Your task to perform on an android device: turn smart compose on in the gmail app Image 0: 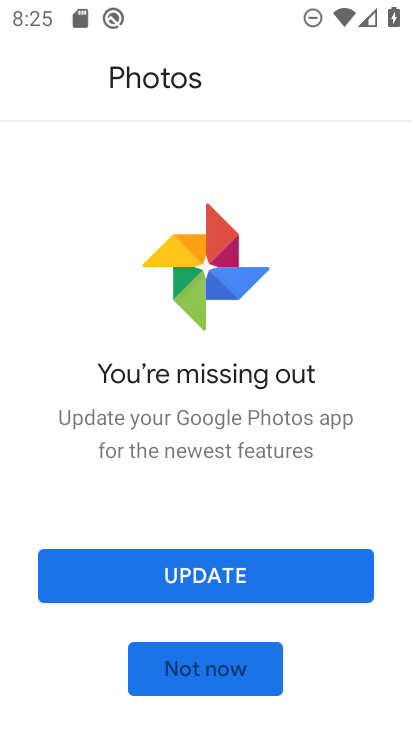
Step 0: press home button
Your task to perform on an android device: turn smart compose on in the gmail app Image 1: 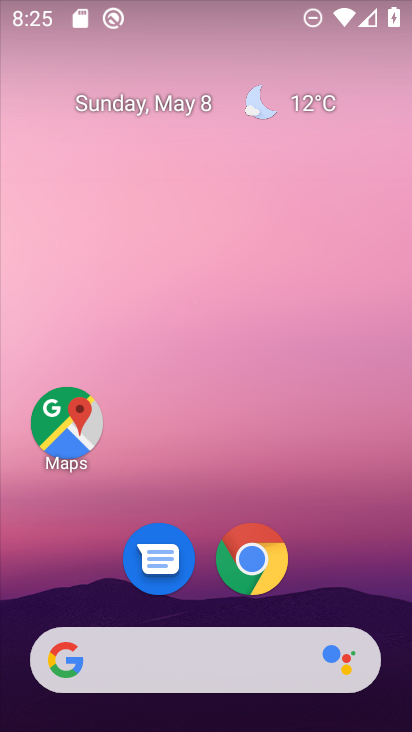
Step 1: drag from (372, 613) to (325, 7)
Your task to perform on an android device: turn smart compose on in the gmail app Image 2: 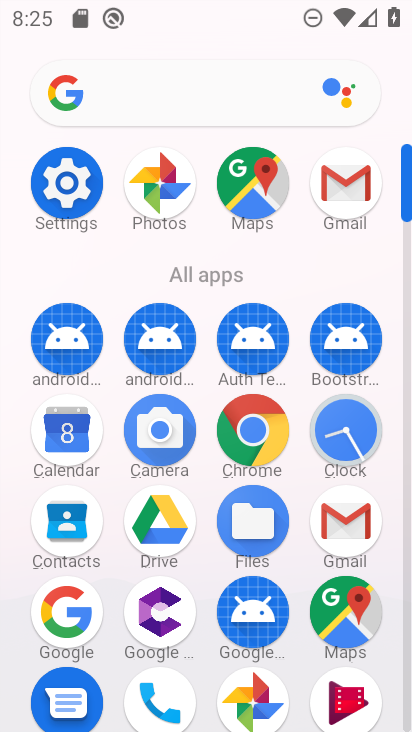
Step 2: click (350, 192)
Your task to perform on an android device: turn smart compose on in the gmail app Image 3: 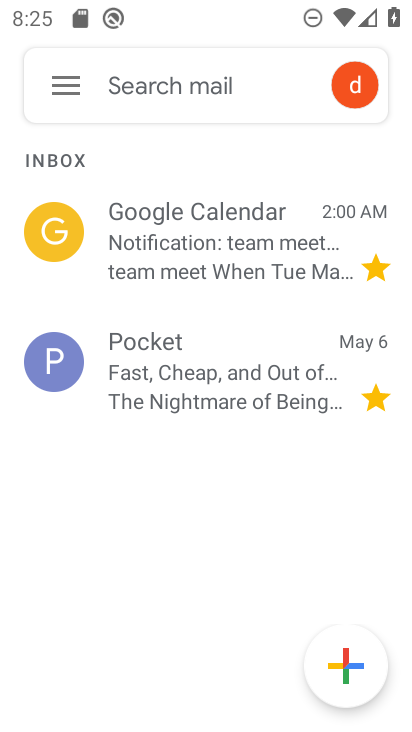
Step 3: click (73, 83)
Your task to perform on an android device: turn smart compose on in the gmail app Image 4: 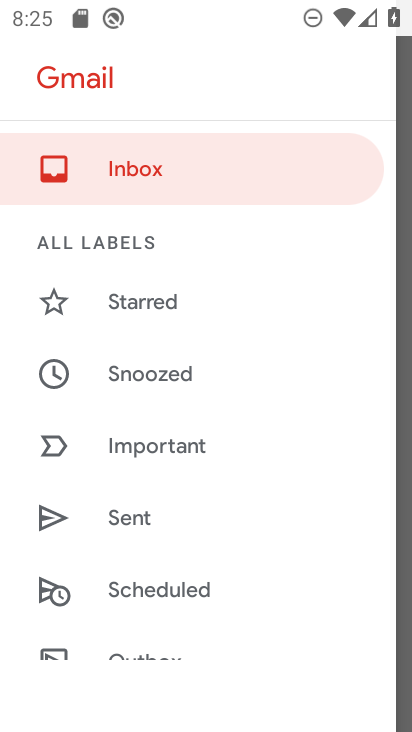
Step 4: drag from (188, 558) to (218, 34)
Your task to perform on an android device: turn smart compose on in the gmail app Image 5: 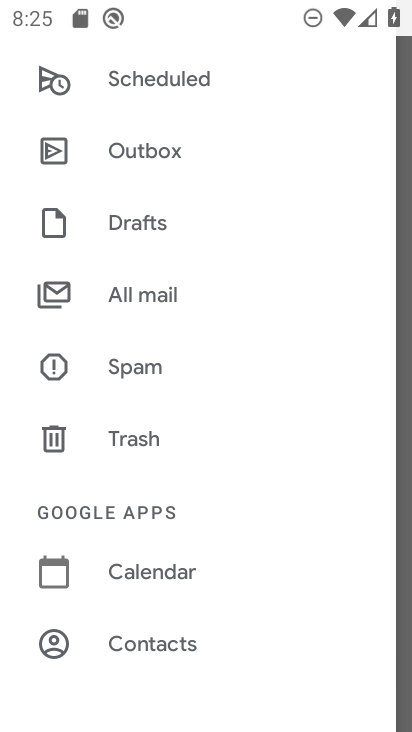
Step 5: drag from (177, 607) to (232, 48)
Your task to perform on an android device: turn smart compose on in the gmail app Image 6: 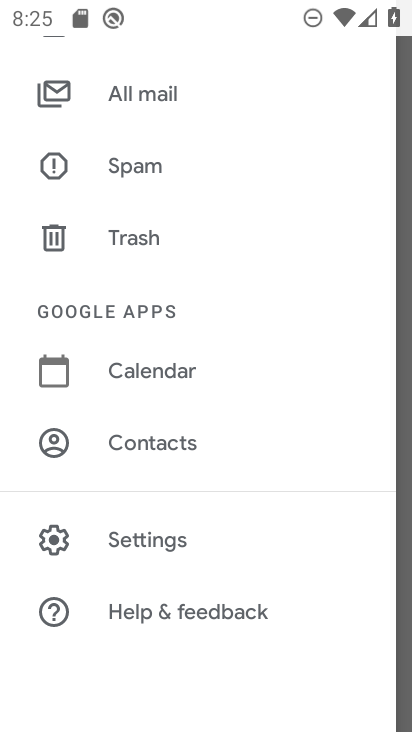
Step 6: click (161, 546)
Your task to perform on an android device: turn smart compose on in the gmail app Image 7: 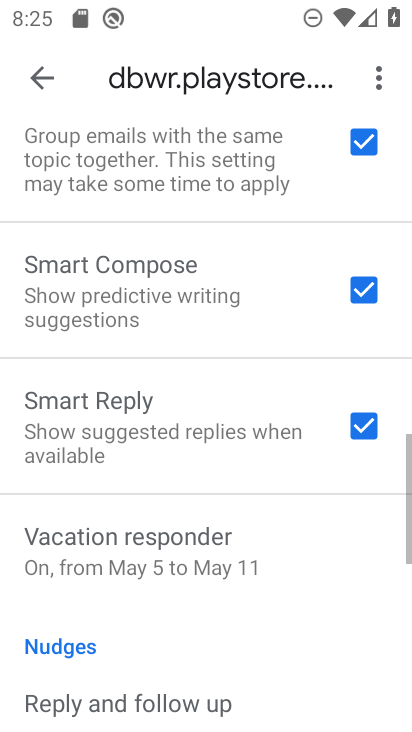
Step 7: task complete